Your task to perform on an android device: find photos in the google photos app Image 0: 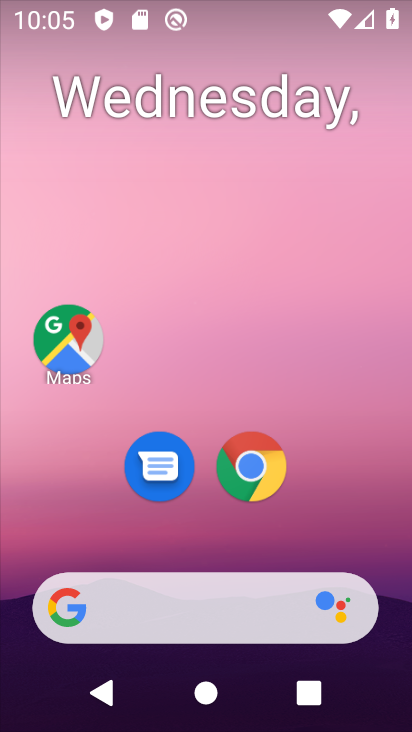
Step 0: drag from (206, 544) to (198, 53)
Your task to perform on an android device: find photos in the google photos app Image 1: 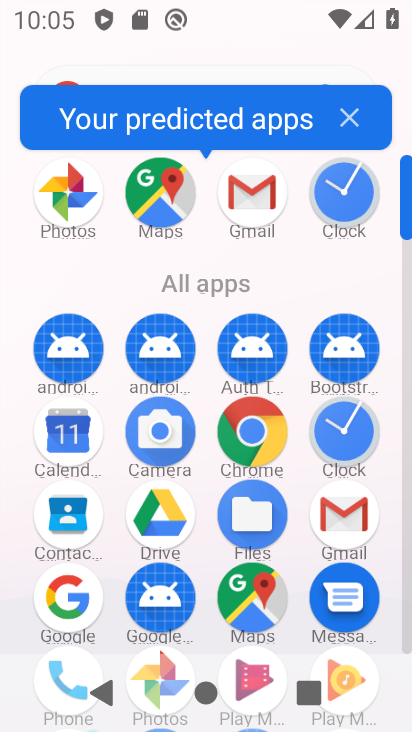
Step 1: click (66, 194)
Your task to perform on an android device: find photos in the google photos app Image 2: 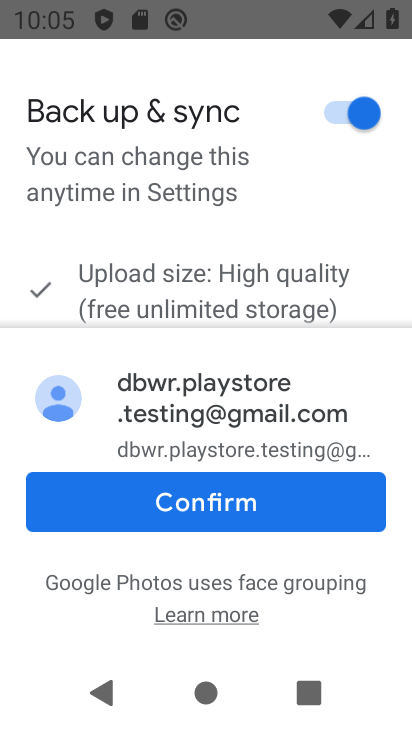
Step 2: click (171, 501)
Your task to perform on an android device: find photos in the google photos app Image 3: 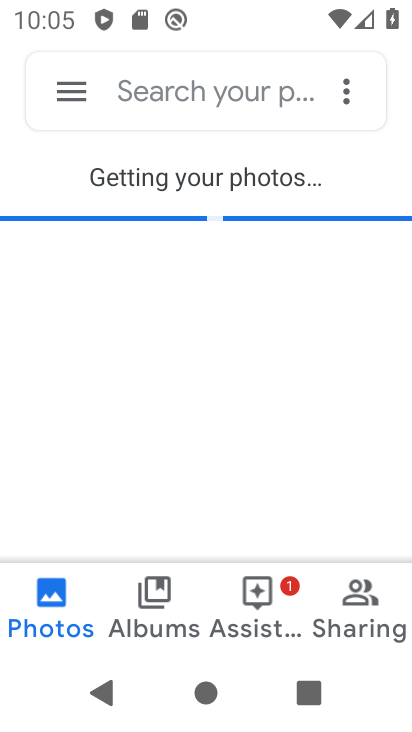
Step 3: task complete